Your task to perform on an android device: turn off sleep mode Image 0: 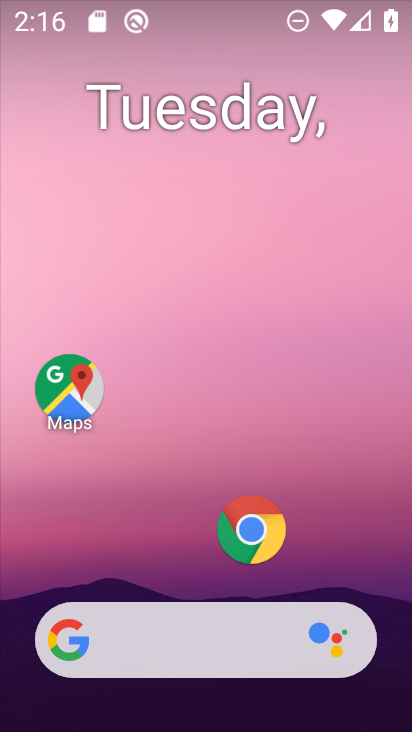
Step 0: press home button
Your task to perform on an android device: turn off sleep mode Image 1: 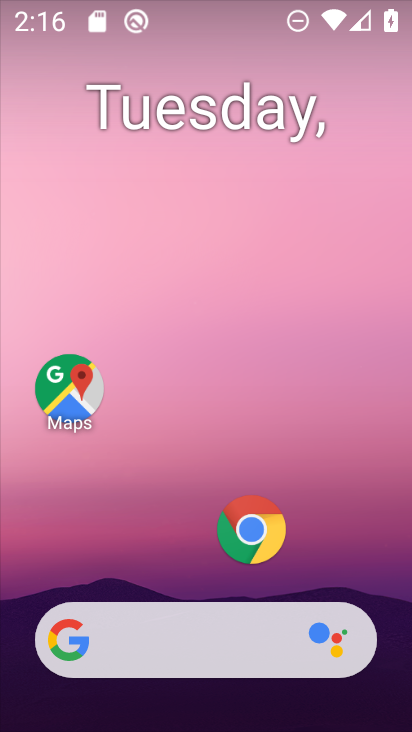
Step 1: drag from (228, 670) to (203, 42)
Your task to perform on an android device: turn off sleep mode Image 2: 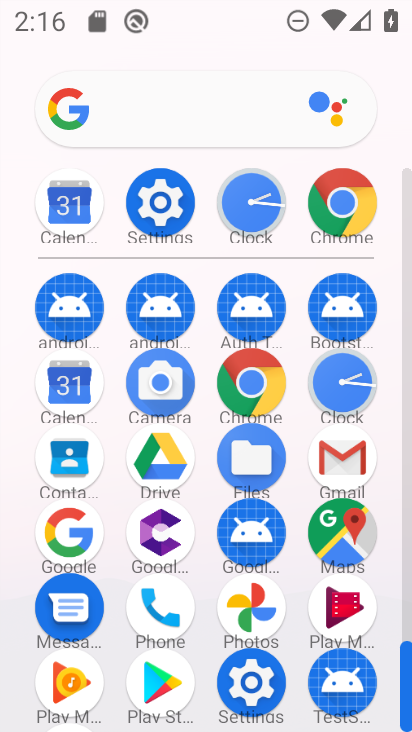
Step 2: click (163, 206)
Your task to perform on an android device: turn off sleep mode Image 3: 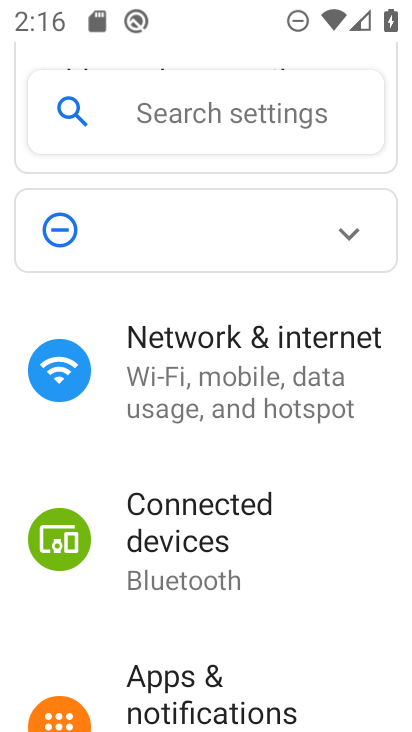
Step 3: click (166, 93)
Your task to perform on an android device: turn off sleep mode Image 4: 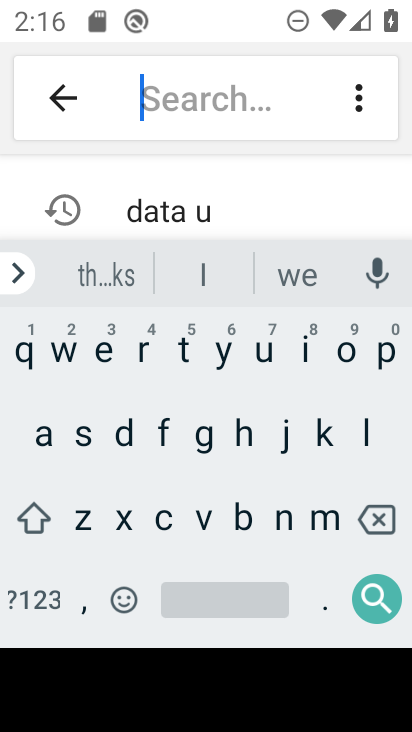
Step 4: click (79, 433)
Your task to perform on an android device: turn off sleep mode Image 5: 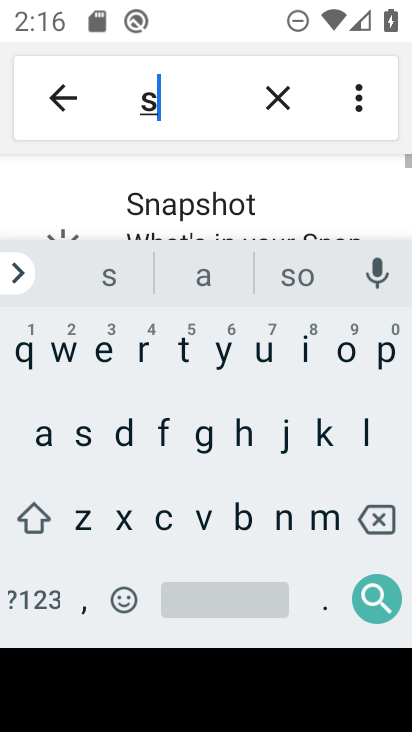
Step 5: click (375, 444)
Your task to perform on an android device: turn off sleep mode Image 6: 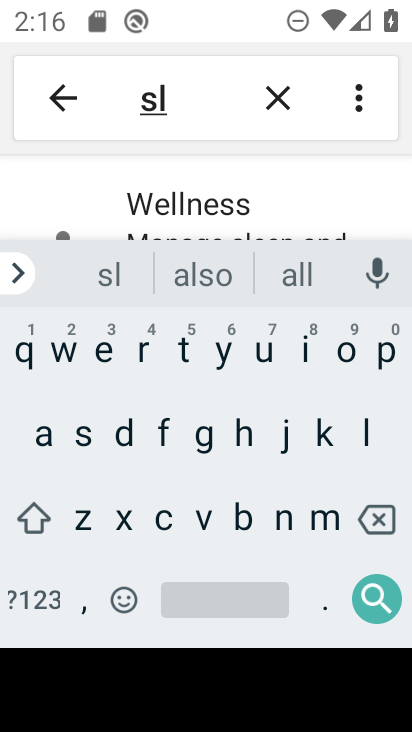
Step 6: click (93, 351)
Your task to perform on an android device: turn off sleep mode Image 7: 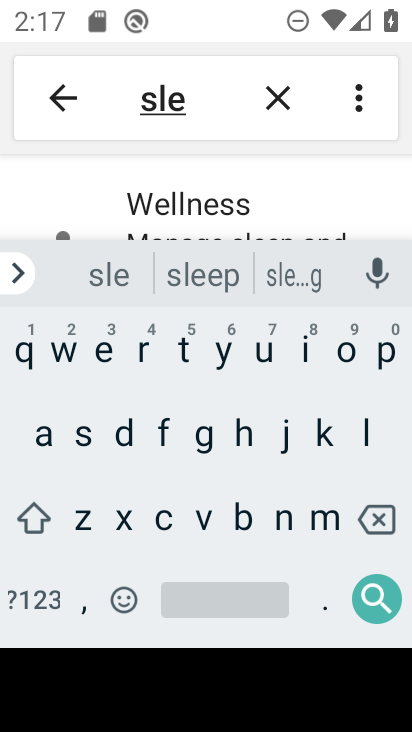
Step 7: click (178, 197)
Your task to perform on an android device: turn off sleep mode Image 8: 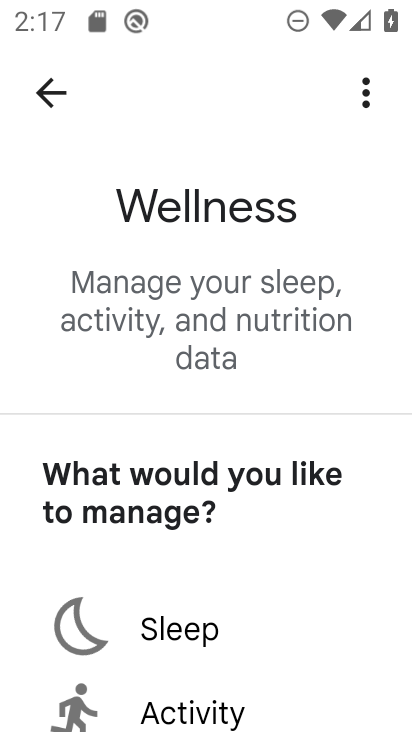
Step 8: click (161, 623)
Your task to perform on an android device: turn off sleep mode Image 9: 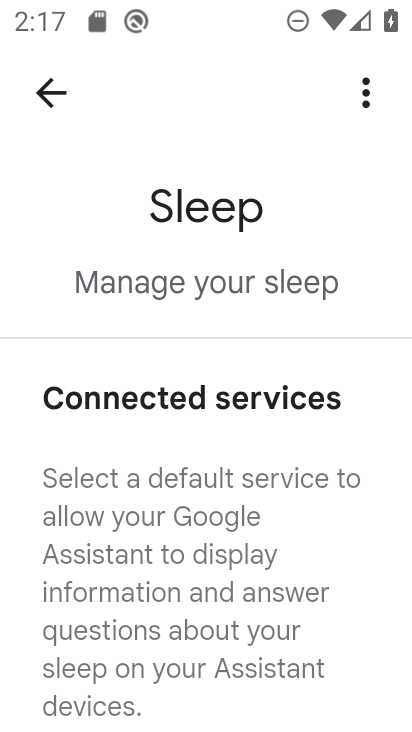
Step 9: task complete